Your task to perform on an android device: Go to Google maps Image 0: 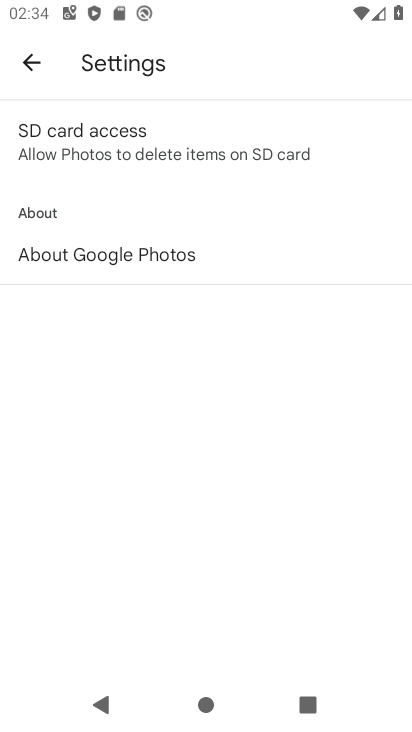
Step 0: press home button
Your task to perform on an android device: Go to Google maps Image 1: 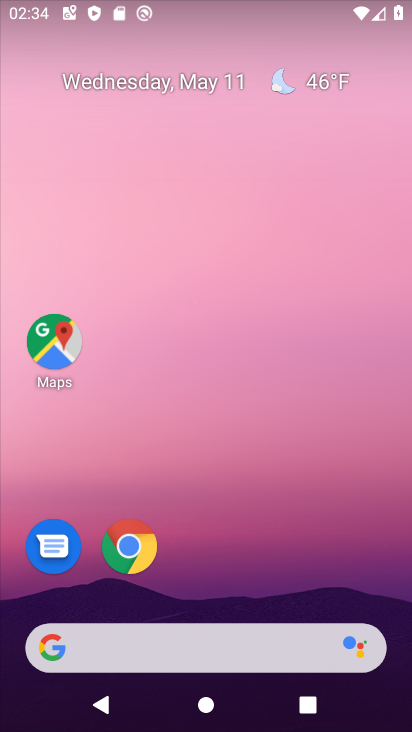
Step 1: drag from (211, 616) to (251, 120)
Your task to perform on an android device: Go to Google maps Image 2: 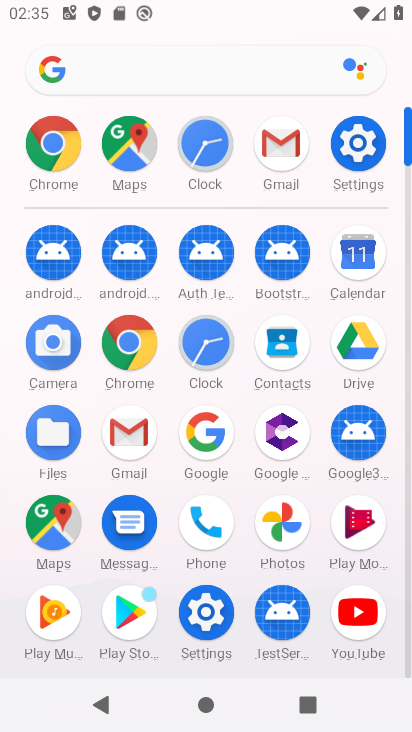
Step 2: click (30, 516)
Your task to perform on an android device: Go to Google maps Image 3: 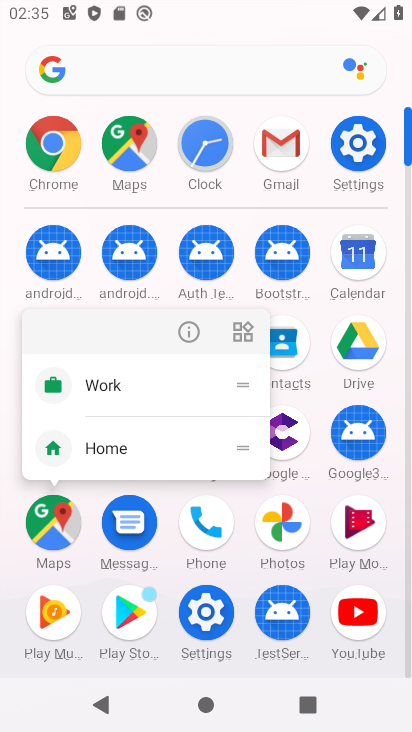
Step 3: click (192, 335)
Your task to perform on an android device: Go to Google maps Image 4: 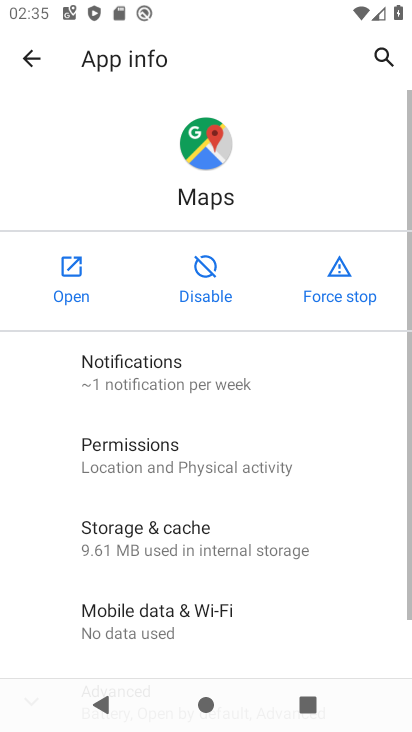
Step 4: click (72, 296)
Your task to perform on an android device: Go to Google maps Image 5: 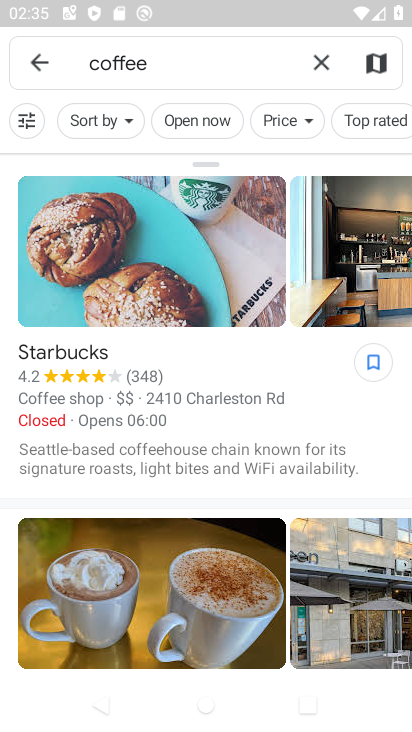
Step 5: task complete